Your task to perform on an android device: turn on the 12-hour format for clock Image 0: 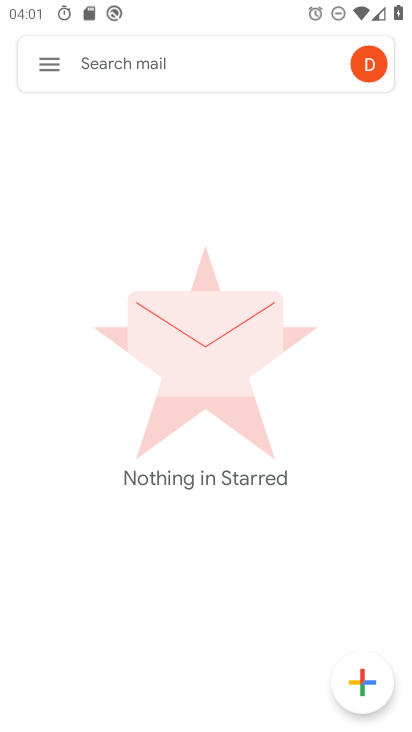
Step 0: press home button
Your task to perform on an android device: turn on the 12-hour format for clock Image 1: 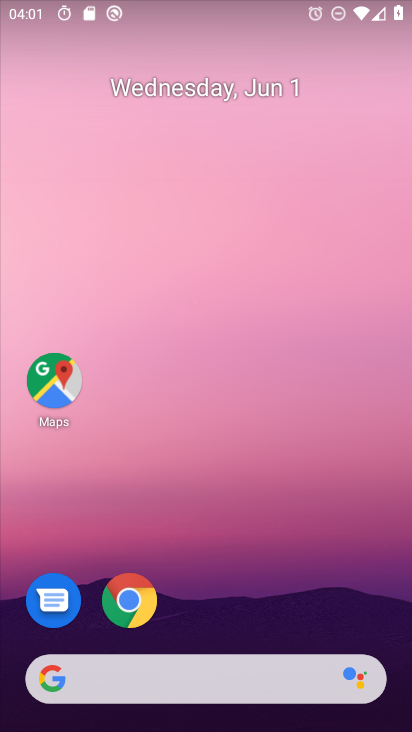
Step 1: drag from (187, 644) to (215, 291)
Your task to perform on an android device: turn on the 12-hour format for clock Image 2: 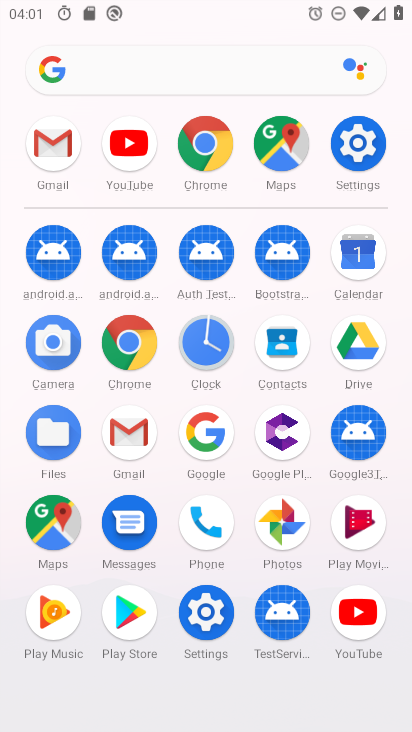
Step 2: click (205, 354)
Your task to perform on an android device: turn on the 12-hour format for clock Image 3: 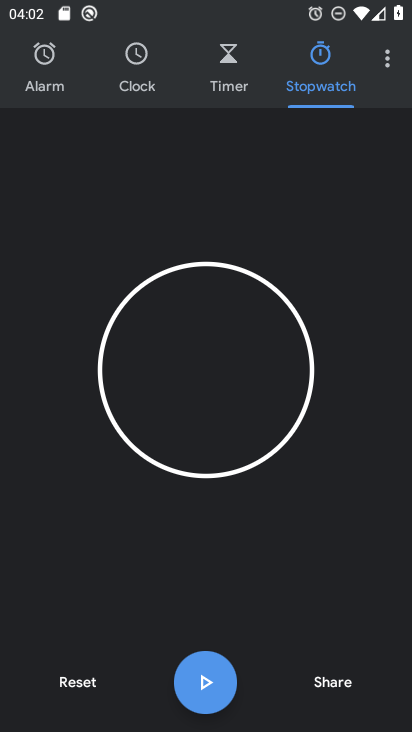
Step 3: click (386, 58)
Your task to perform on an android device: turn on the 12-hour format for clock Image 4: 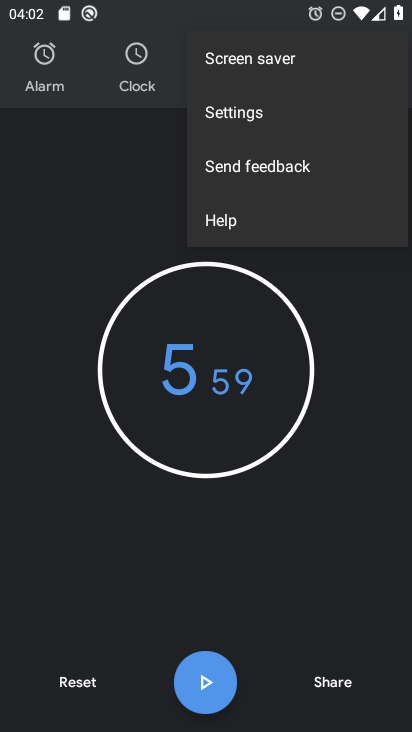
Step 4: click (246, 114)
Your task to perform on an android device: turn on the 12-hour format for clock Image 5: 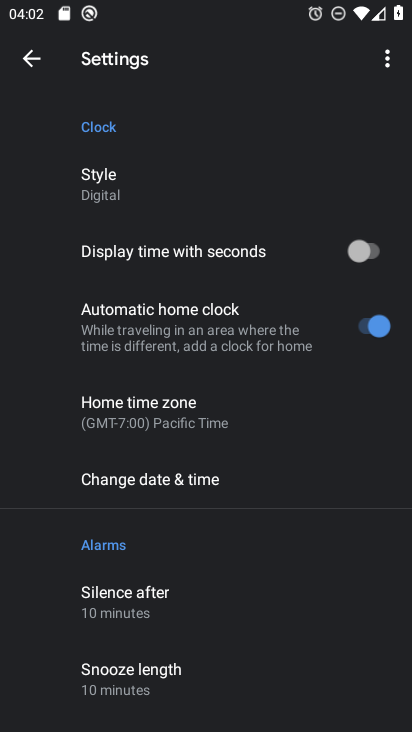
Step 5: click (157, 477)
Your task to perform on an android device: turn on the 12-hour format for clock Image 6: 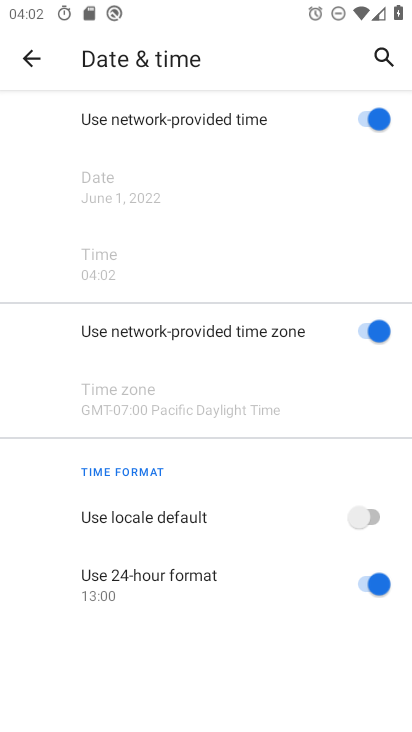
Step 6: click (362, 589)
Your task to perform on an android device: turn on the 12-hour format for clock Image 7: 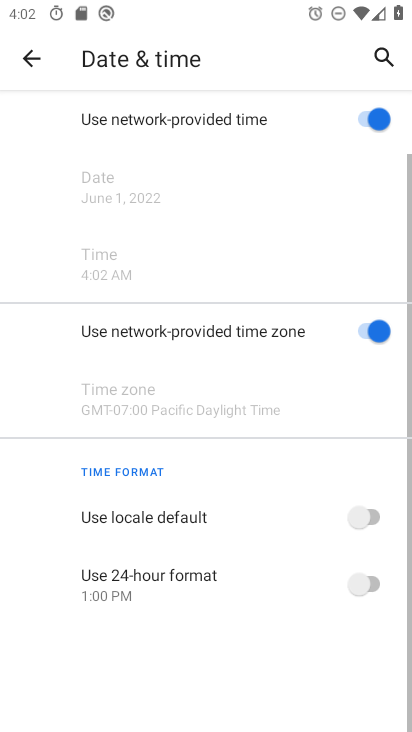
Step 7: click (372, 519)
Your task to perform on an android device: turn on the 12-hour format for clock Image 8: 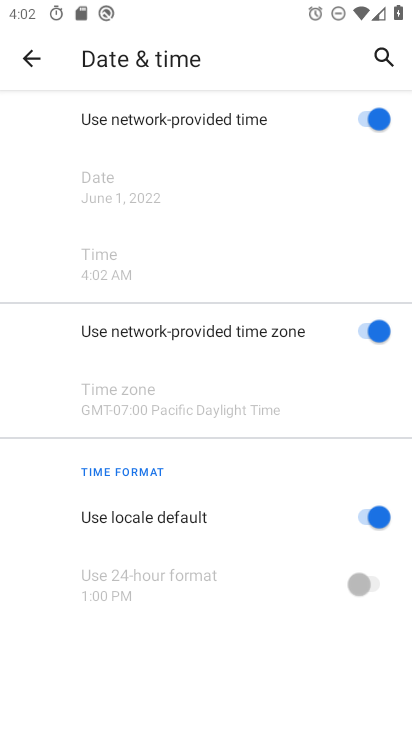
Step 8: task complete